Your task to perform on an android device: Open Chrome and go to settings Image 0: 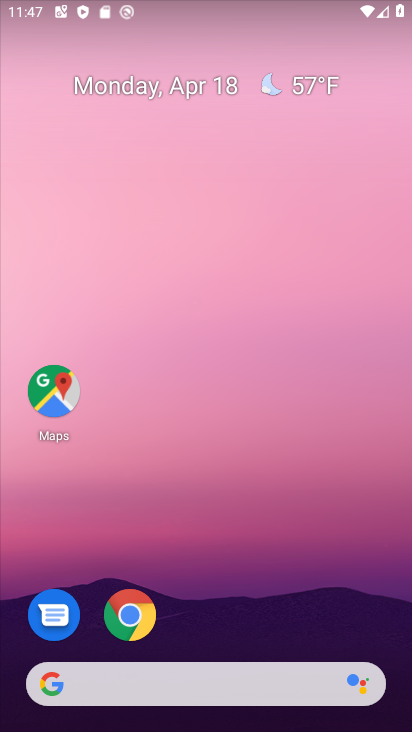
Step 0: click (152, 602)
Your task to perform on an android device: Open Chrome and go to settings Image 1: 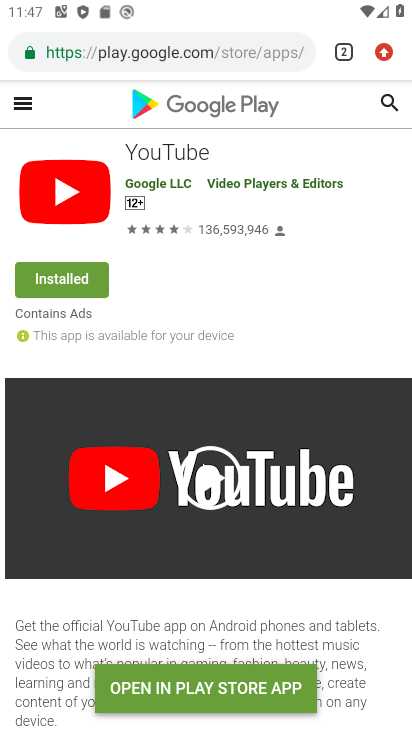
Step 1: click (375, 53)
Your task to perform on an android device: Open Chrome and go to settings Image 2: 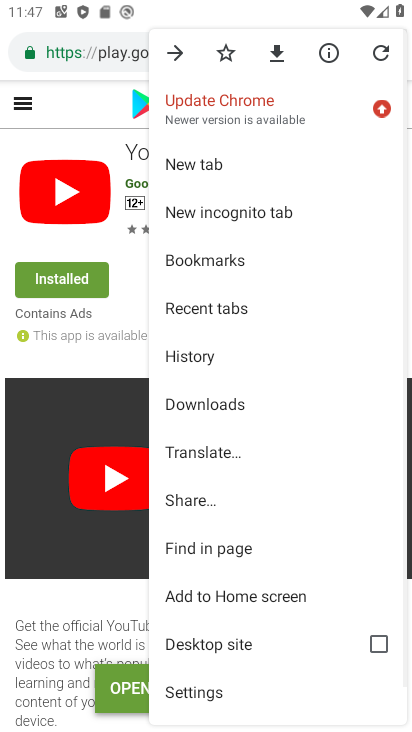
Step 2: drag from (252, 653) to (266, 444)
Your task to perform on an android device: Open Chrome and go to settings Image 3: 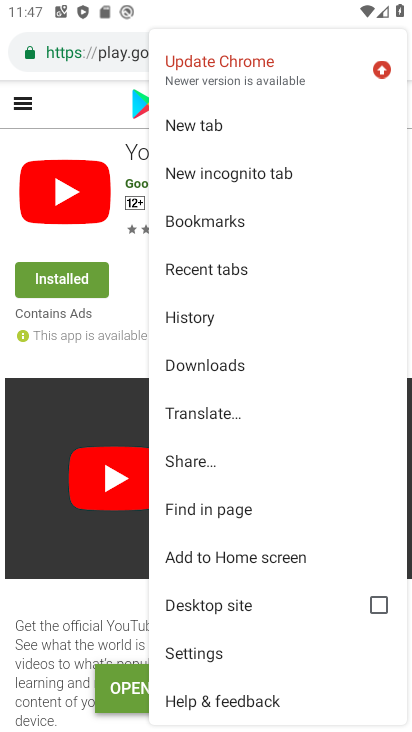
Step 3: click (207, 643)
Your task to perform on an android device: Open Chrome and go to settings Image 4: 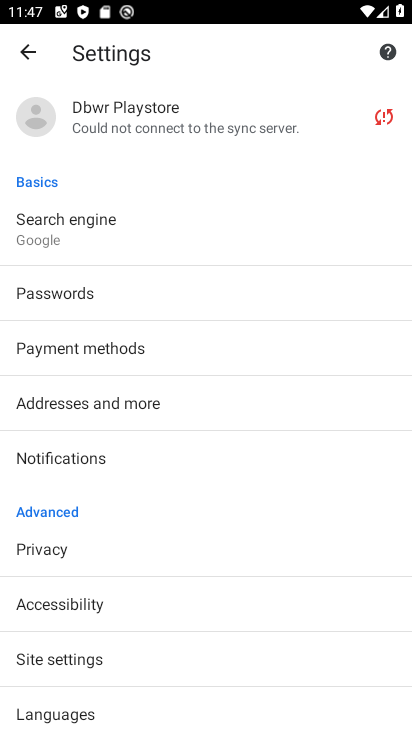
Step 4: task complete